Your task to perform on an android device: Check the news Image 0: 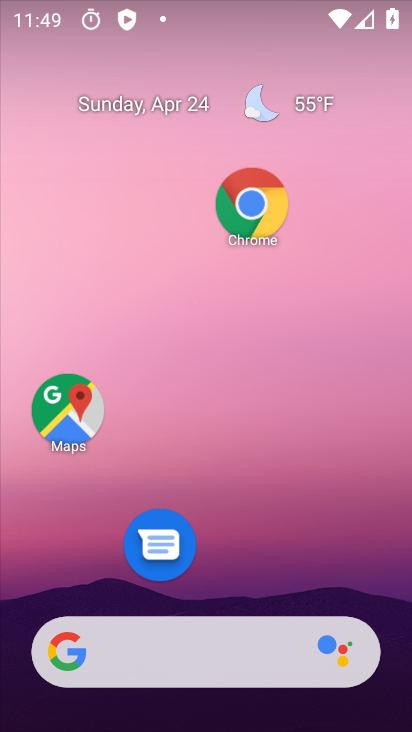
Step 0: drag from (255, 641) to (240, 158)
Your task to perform on an android device: Check the news Image 1: 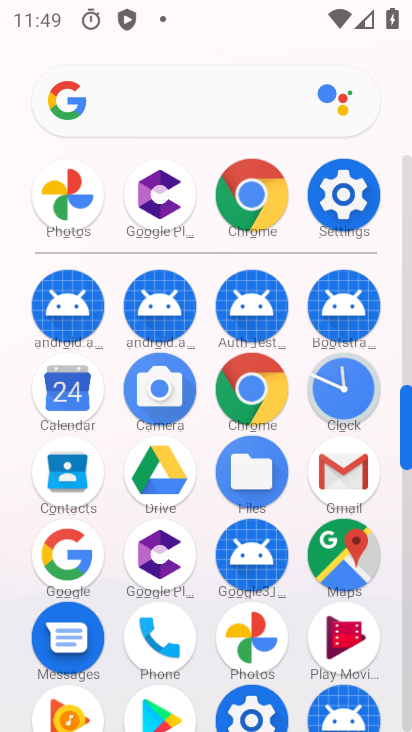
Step 1: click (181, 114)
Your task to perform on an android device: Check the news Image 2: 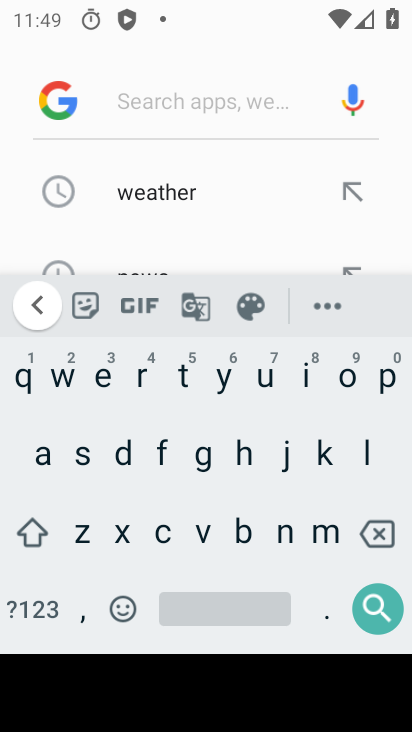
Step 2: click (145, 267)
Your task to perform on an android device: Check the news Image 3: 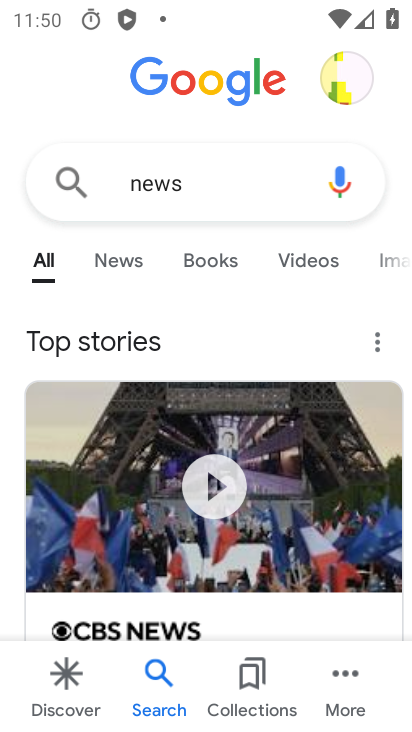
Step 3: task complete